Your task to perform on an android device: What is the recent news? Image 0: 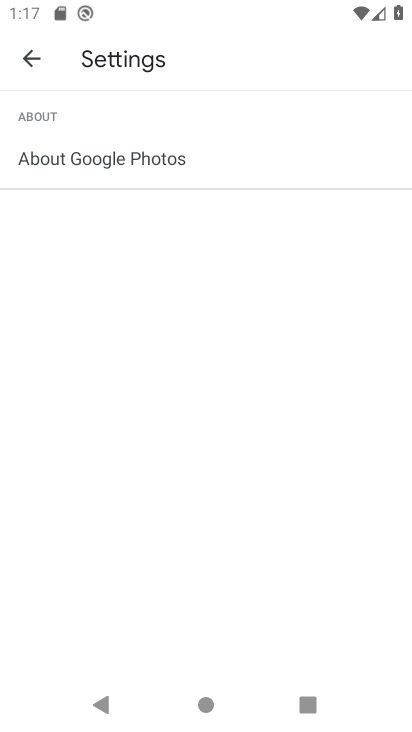
Step 0: press home button
Your task to perform on an android device: What is the recent news? Image 1: 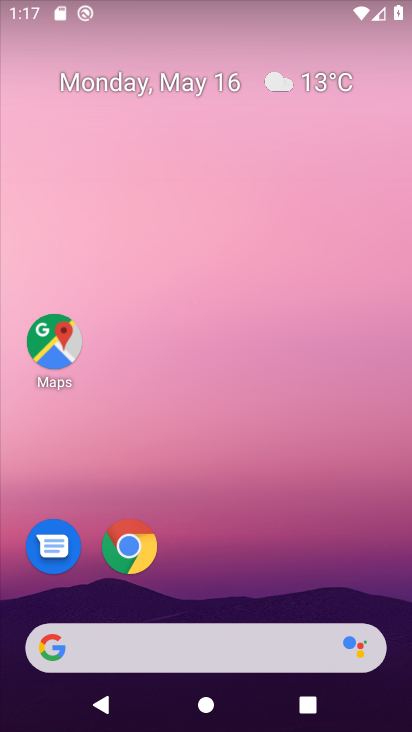
Step 1: task complete